Your task to perform on an android device: What's the weather? Image 0: 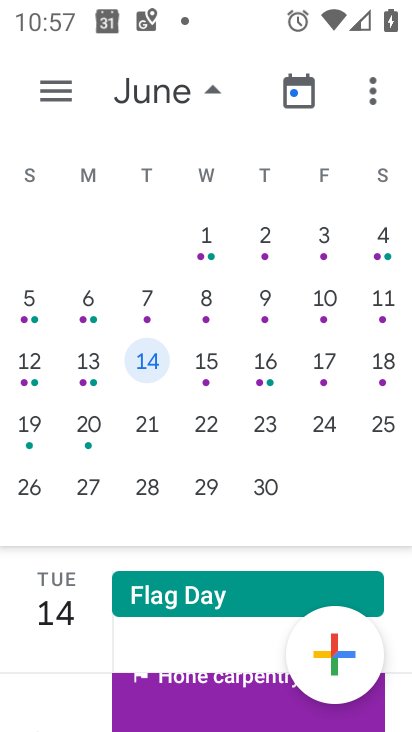
Step 0: press home button
Your task to perform on an android device: What's the weather? Image 1: 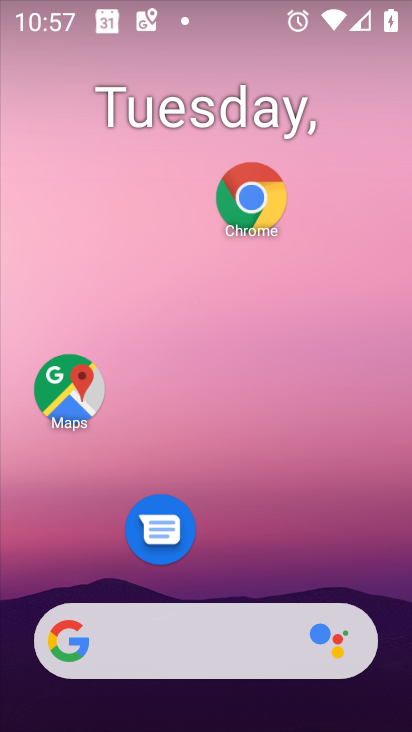
Step 1: click (335, 554)
Your task to perform on an android device: What's the weather? Image 2: 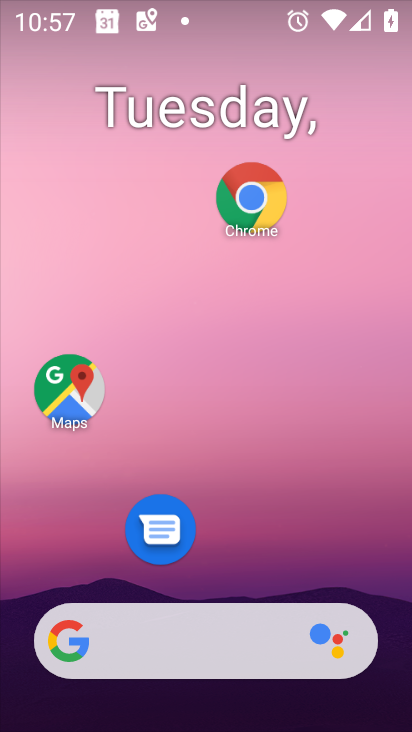
Step 2: click (214, 647)
Your task to perform on an android device: What's the weather? Image 3: 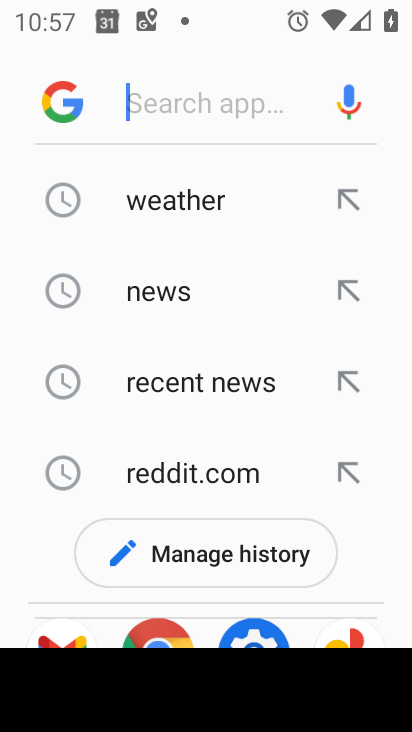
Step 3: click (208, 177)
Your task to perform on an android device: What's the weather? Image 4: 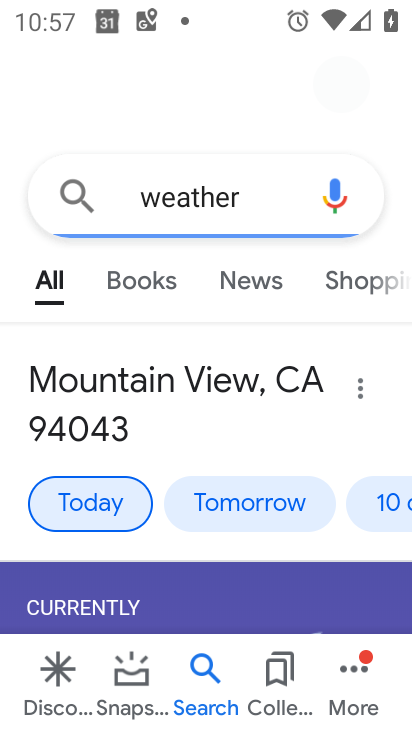
Step 4: task complete